Your task to perform on an android device: Open Chrome and go to the settings page Image 0: 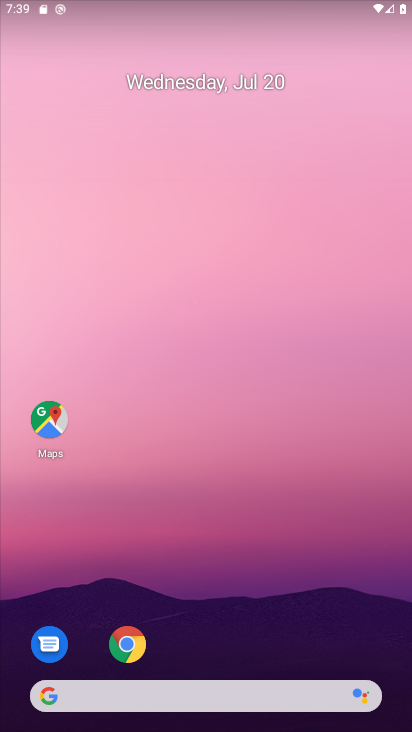
Step 0: drag from (147, 654) to (164, 214)
Your task to perform on an android device: Open Chrome and go to the settings page Image 1: 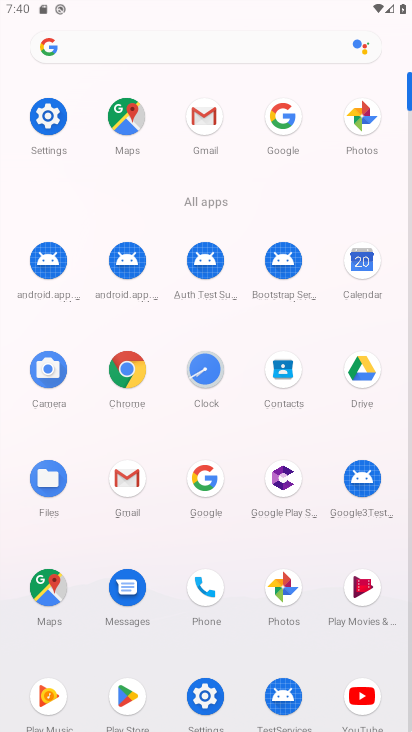
Step 1: click (110, 365)
Your task to perform on an android device: Open Chrome and go to the settings page Image 2: 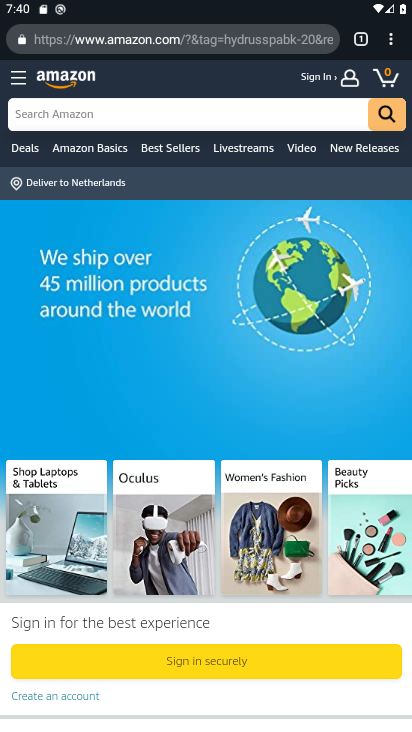
Step 2: click (386, 42)
Your task to perform on an android device: Open Chrome and go to the settings page Image 3: 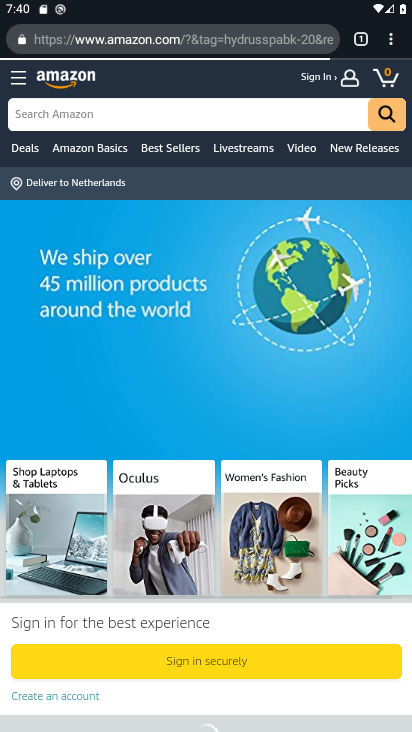
Step 3: click (385, 43)
Your task to perform on an android device: Open Chrome and go to the settings page Image 4: 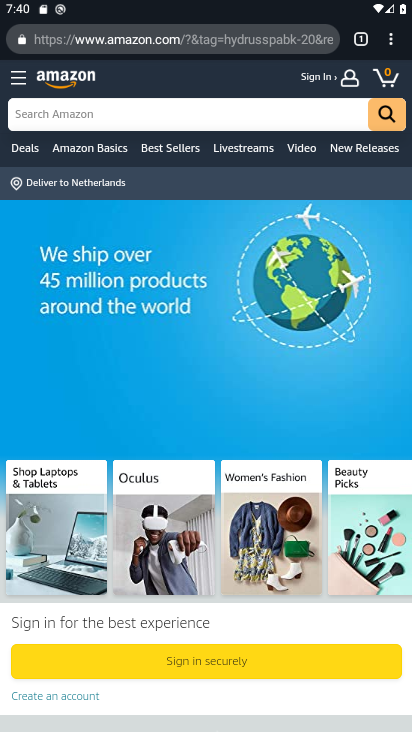
Step 4: click (395, 40)
Your task to perform on an android device: Open Chrome and go to the settings page Image 5: 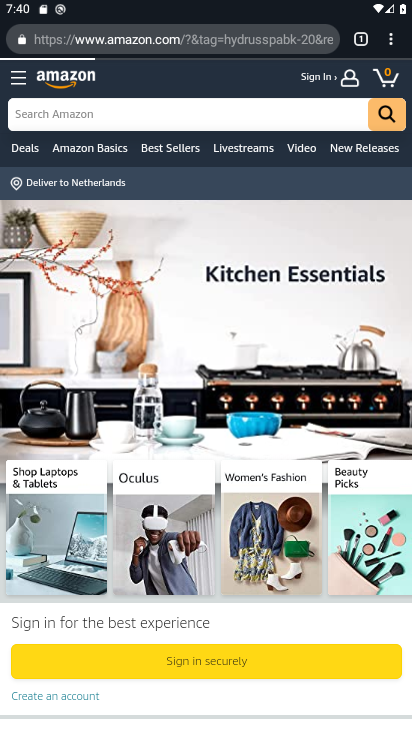
Step 5: click (395, 40)
Your task to perform on an android device: Open Chrome and go to the settings page Image 6: 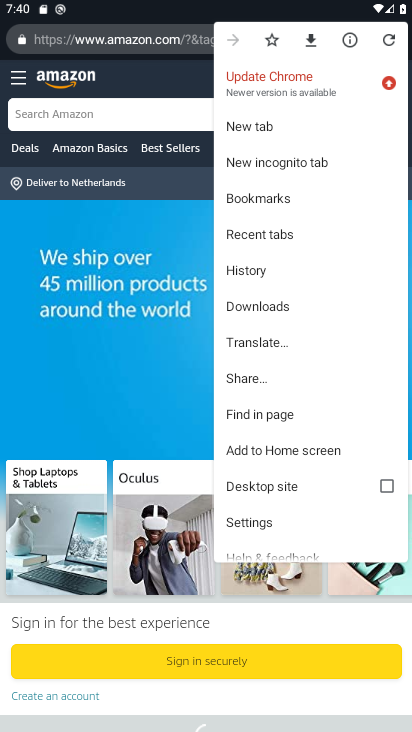
Step 6: click (262, 524)
Your task to perform on an android device: Open Chrome and go to the settings page Image 7: 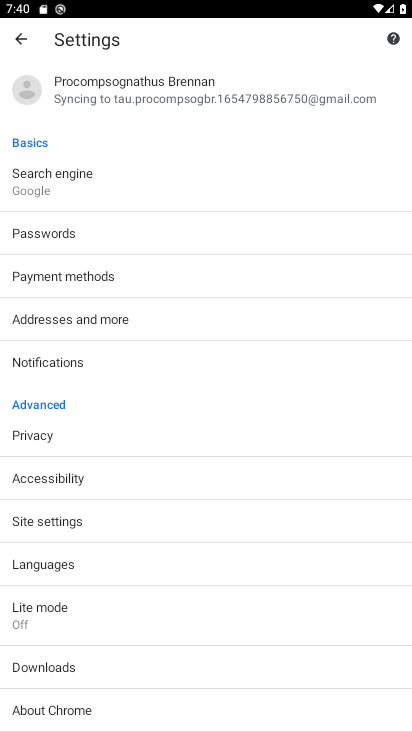
Step 7: task complete